Your task to perform on an android device: toggle improve location accuracy Image 0: 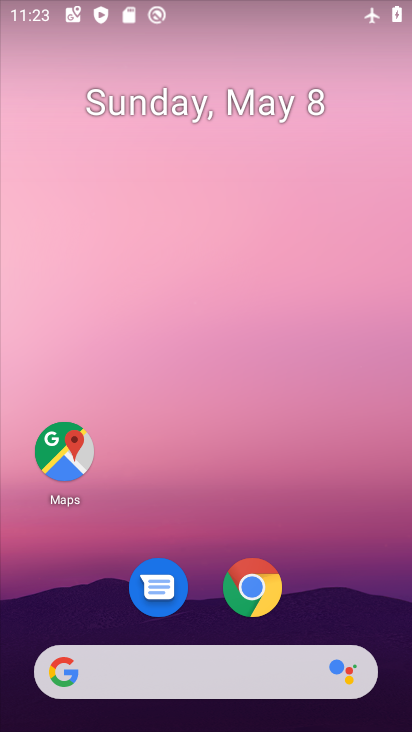
Step 0: drag from (259, 608) to (91, 87)
Your task to perform on an android device: toggle improve location accuracy Image 1: 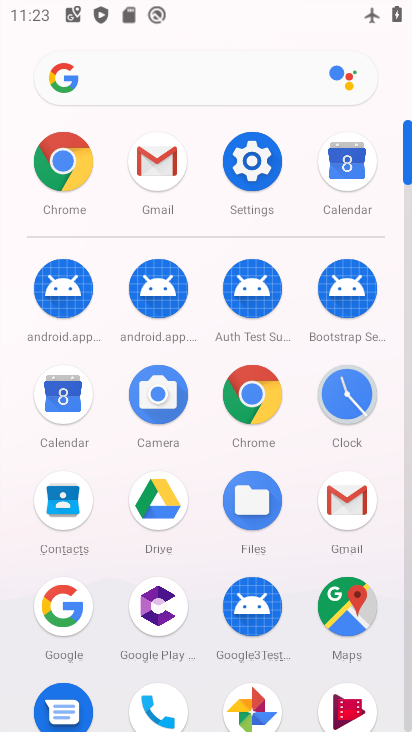
Step 1: click (245, 158)
Your task to perform on an android device: toggle improve location accuracy Image 2: 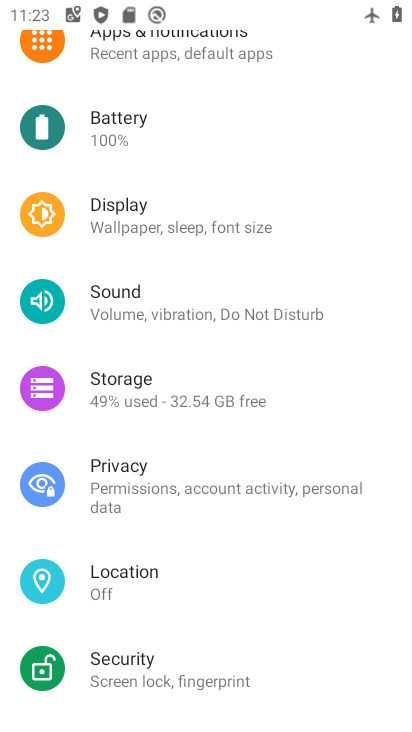
Step 2: drag from (205, 181) to (281, 514)
Your task to perform on an android device: toggle improve location accuracy Image 3: 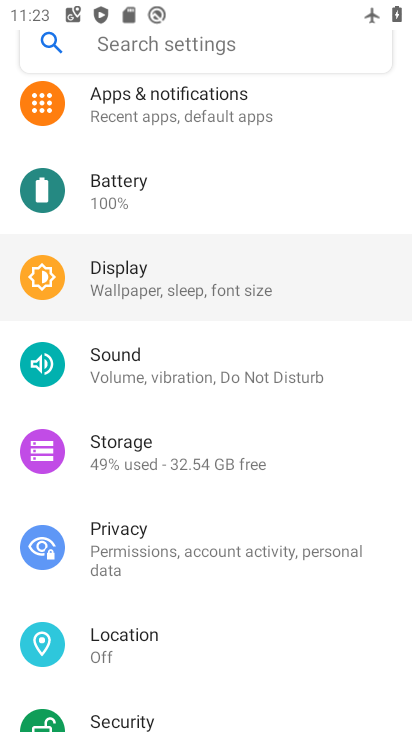
Step 3: drag from (251, 202) to (251, 415)
Your task to perform on an android device: toggle improve location accuracy Image 4: 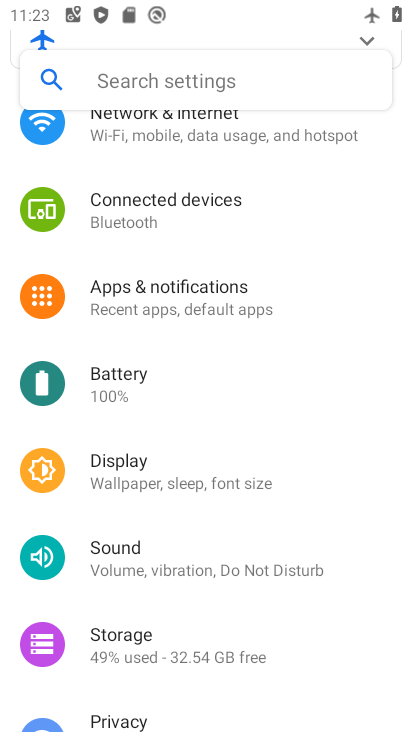
Step 4: click (154, 107)
Your task to perform on an android device: toggle improve location accuracy Image 5: 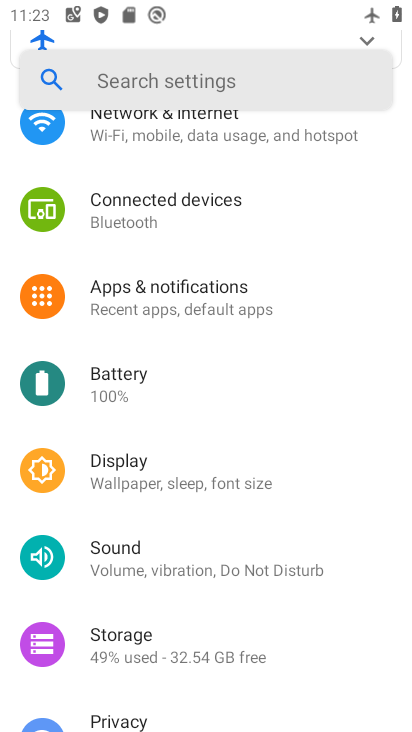
Step 5: click (157, 116)
Your task to perform on an android device: toggle improve location accuracy Image 6: 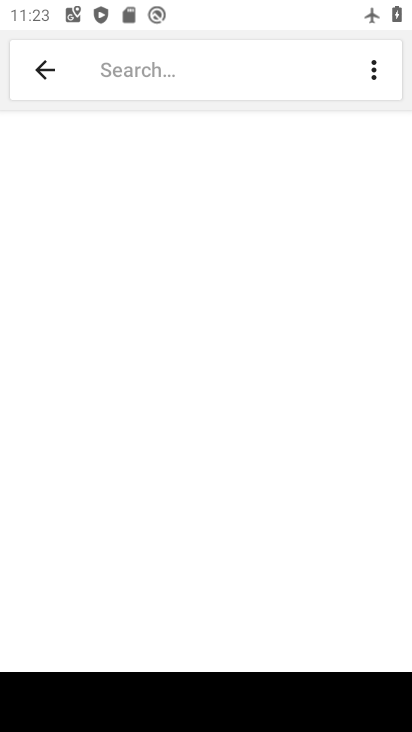
Step 6: click (37, 66)
Your task to perform on an android device: toggle improve location accuracy Image 7: 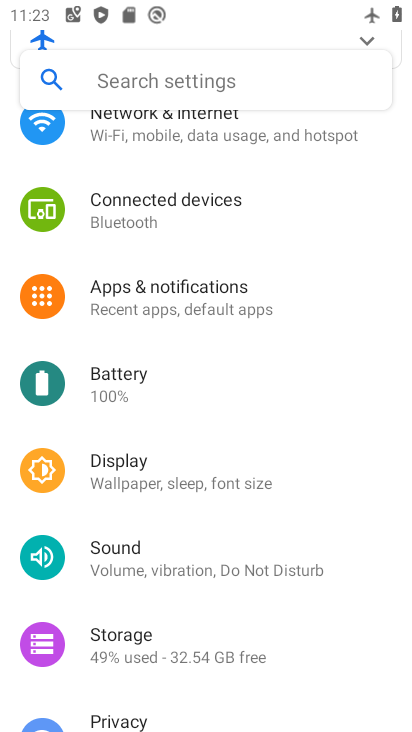
Step 7: click (202, 146)
Your task to perform on an android device: toggle improve location accuracy Image 8: 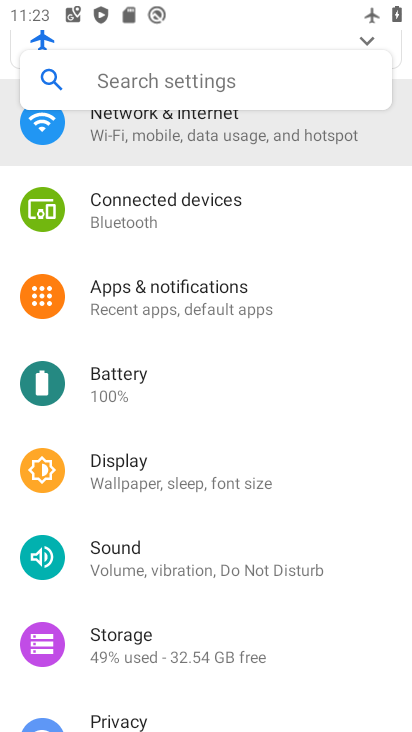
Step 8: click (203, 143)
Your task to perform on an android device: toggle improve location accuracy Image 9: 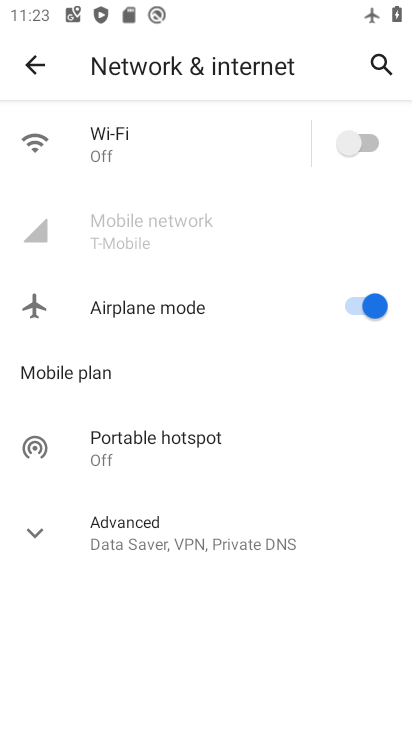
Step 9: click (380, 307)
Your task to perform on an android device: toggle improve location accuracy Image 10: 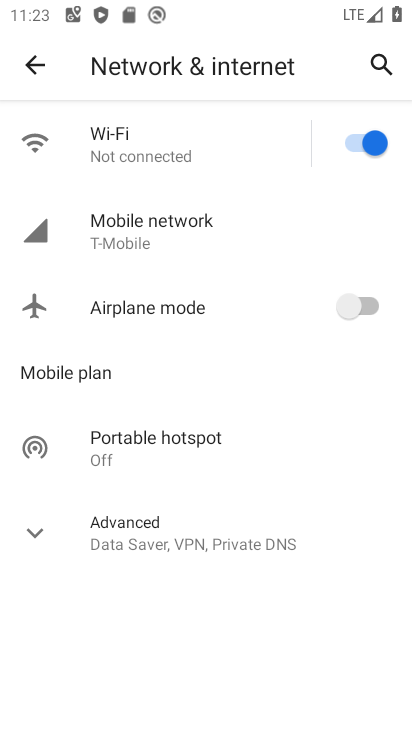
Step 10: click (23, 59)
Your task to perform on an android device: toggle improve location accuracy Image 11: 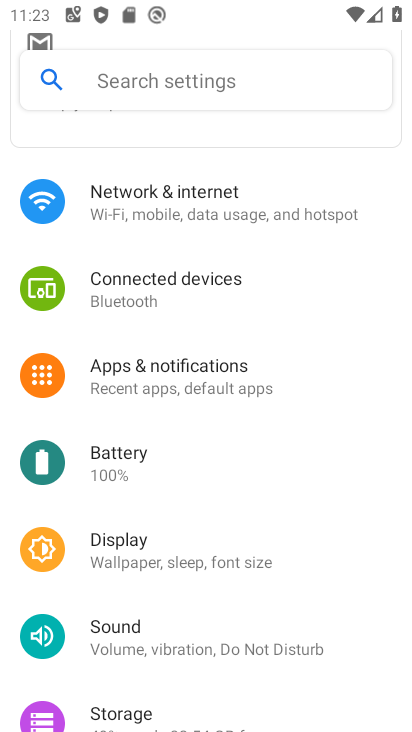
Step 11: drag from (197, 620) to (199, 132)
Your task to perform on an android device: toggle improve location accuracy Image 12: 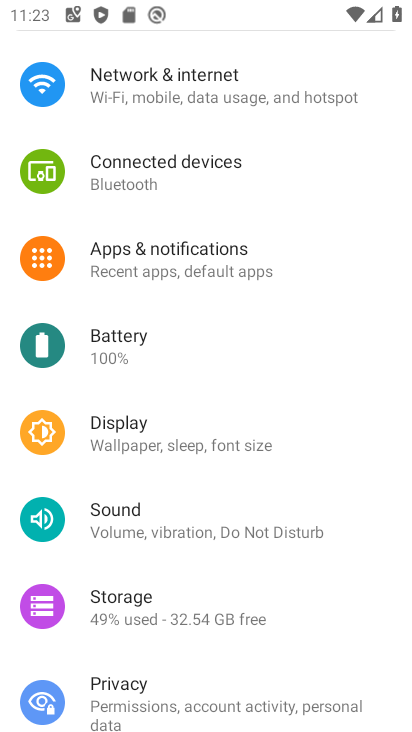
Step 12: drag from (122, 488) to (91, 129)
Your task to perform on an android device: toggle improve location accuracy Image 13: 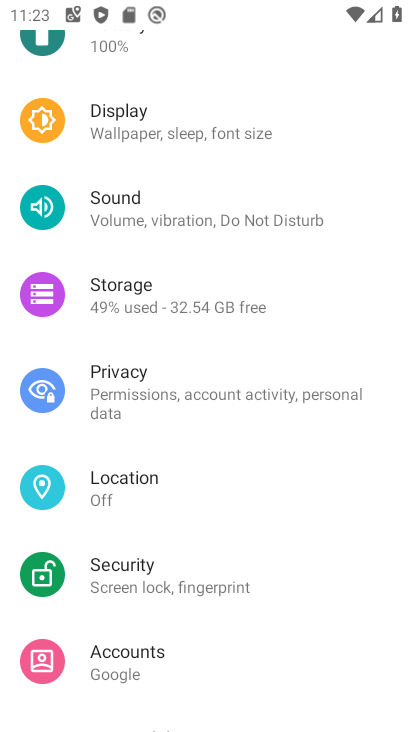
Step 13: click (115, 484)
Your task to perform on an android device: toggle improve location accuracy Image 14: 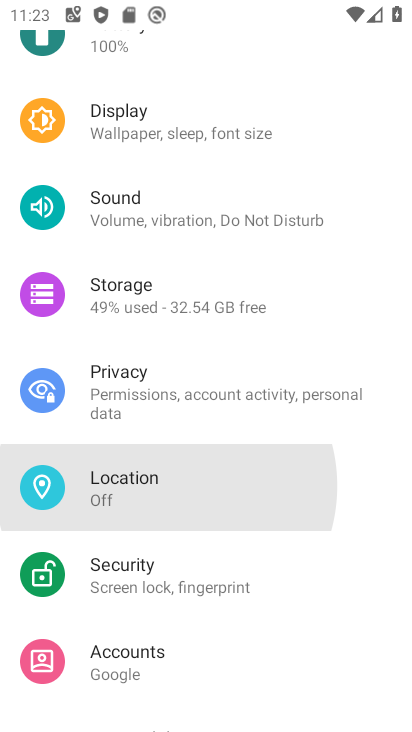
Step 14: click (115, 484)
Your task to perform on an android device: toggle improve location accuracy Image 15: 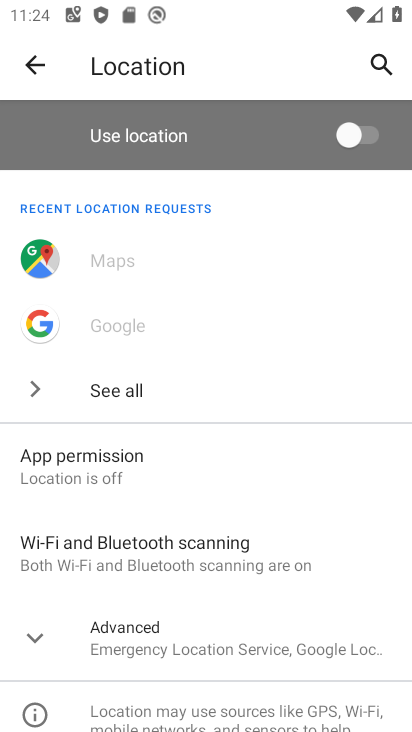
Step 15: click (134, 631)
Your task to perform on an android device: toggle improve location accuracy Image 16: 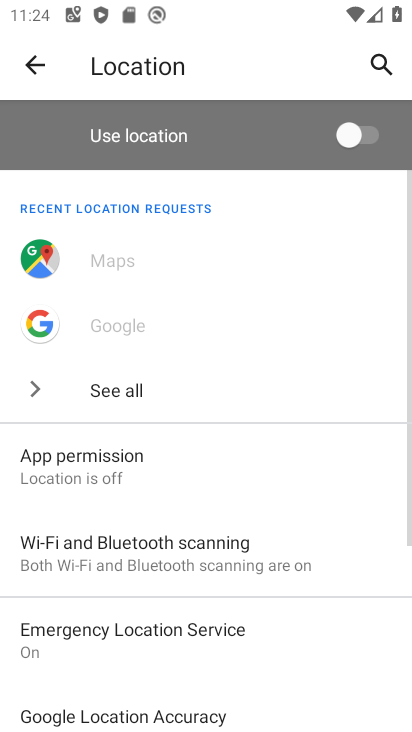
Step 16: drag from (209, 595) to (148, 89)
Your task to perform on an android device: toggle improve location accuracy Image 17: 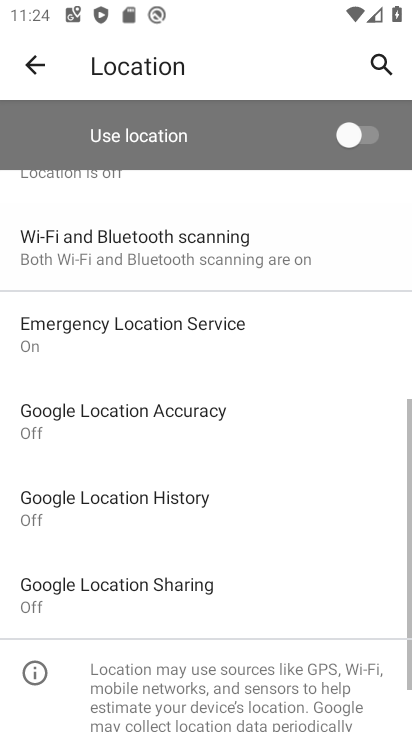
Step 17: drag from (240, 656) to (119, 148)
Your task to perform on an android device: toggle improve location accuracy Image 18: 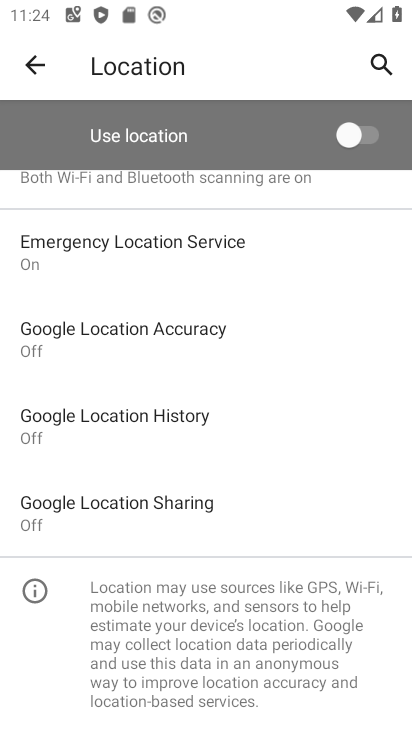
Step 18: click (76, 336)
Your task to perform on an android device: toggle improve location accuracy Image 19: 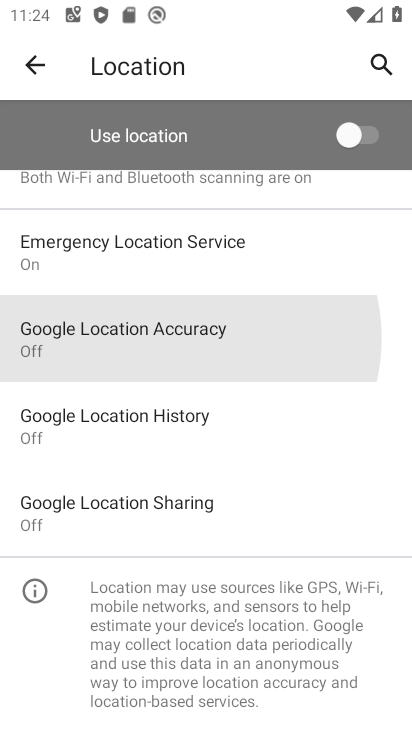
Step 19: click (76, 336)
Your task to perform on an android device: toggle improve location accuracy Image 20: 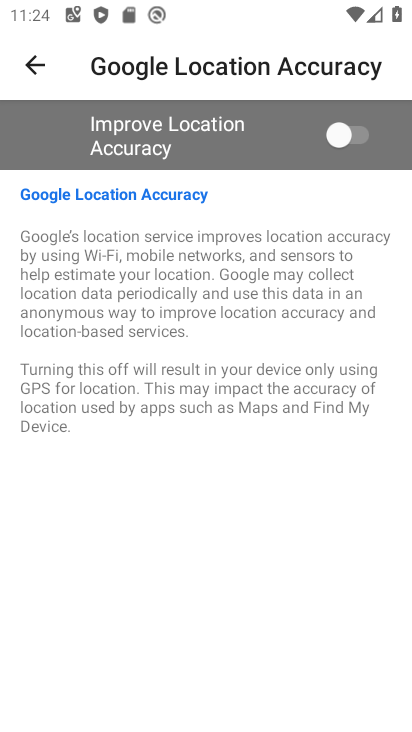
Step 20: click (334, 117)
Your task to perform on an android device: toggle improve location accuracy Image 21: 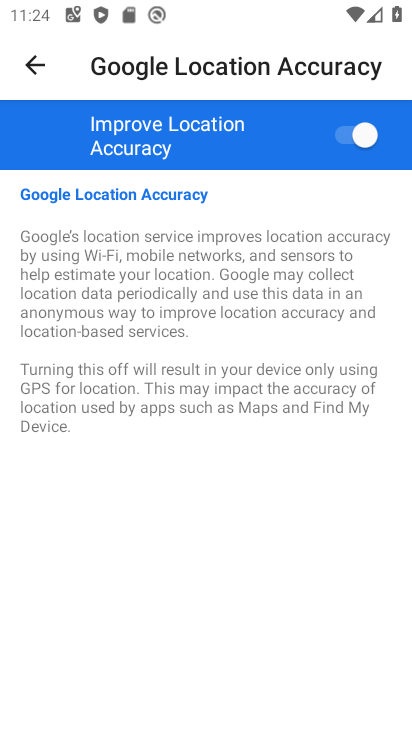
Step 21: task complete